Your task to perform on an android device: Open maps Image 0: 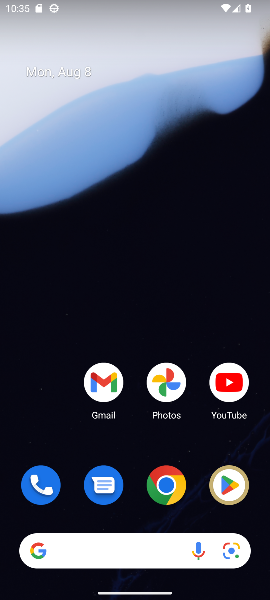
Step 0: drag from (128, 499) to (176, 88)
Your task to perform on an android device: Open maps Image 1: 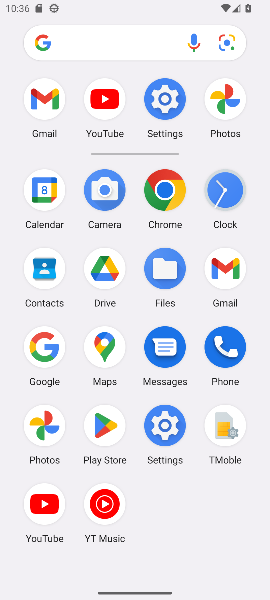
Step 1: click (107, 348)
Your task to perform on an android device: Open maps Image 2: 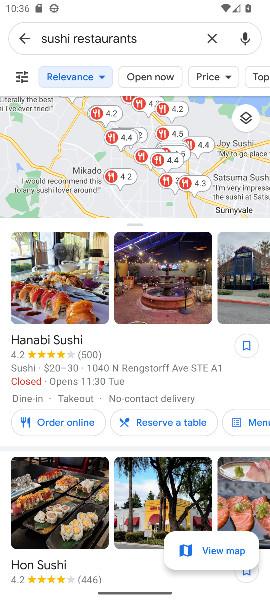
Step 2: click (19, 41)
Your task to perform on an android device: Open maps Image 3: 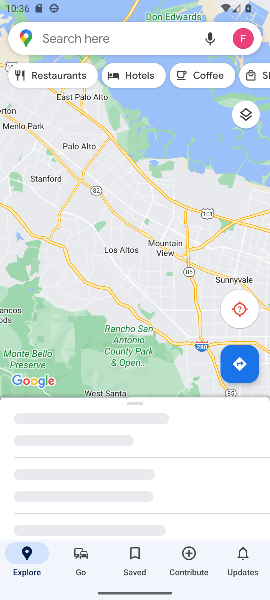
Step 3: task complete